Your task to perform on an android device: empty trash in the gmail app Image 0: 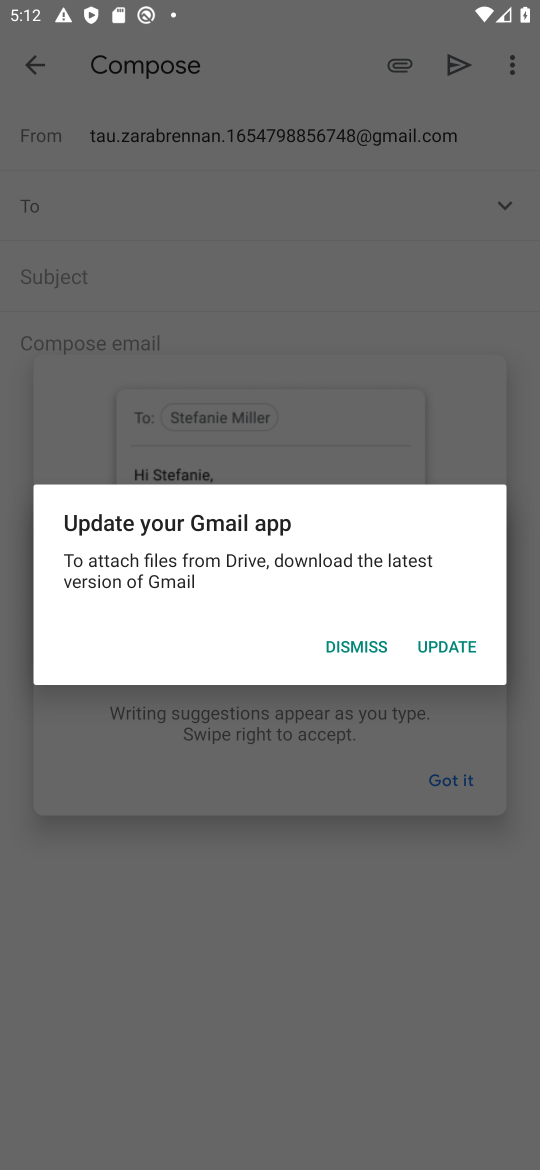
Step 0: press home button
Your task to perform on an android device: empty trash in the gmail app Image 1: 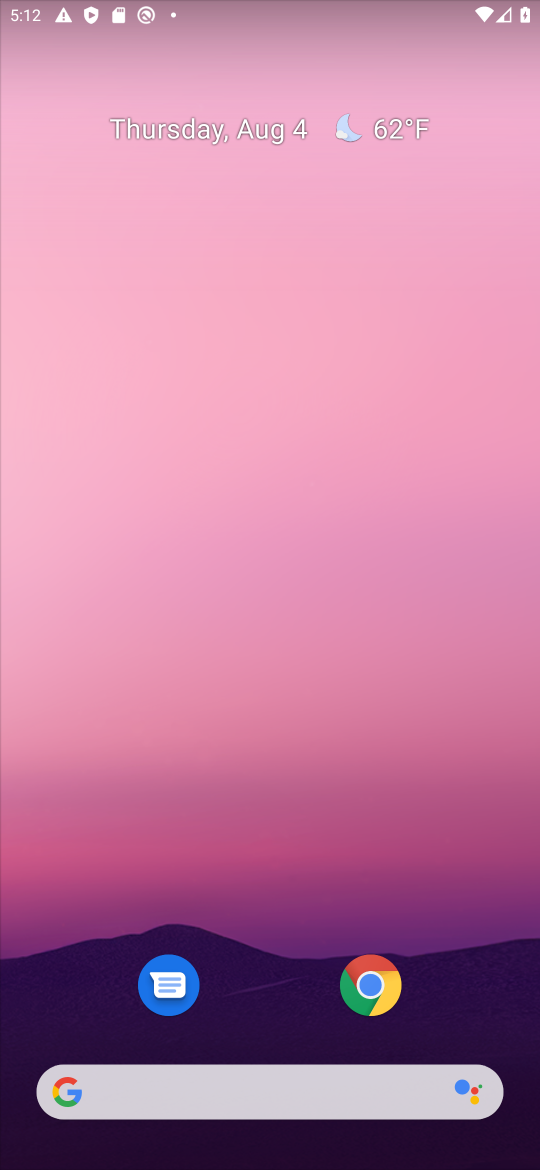
Step 1: drag from (295, 968) to (274, 218)
Your task to perform on an android device: empty trash in the gmail app Image 2: 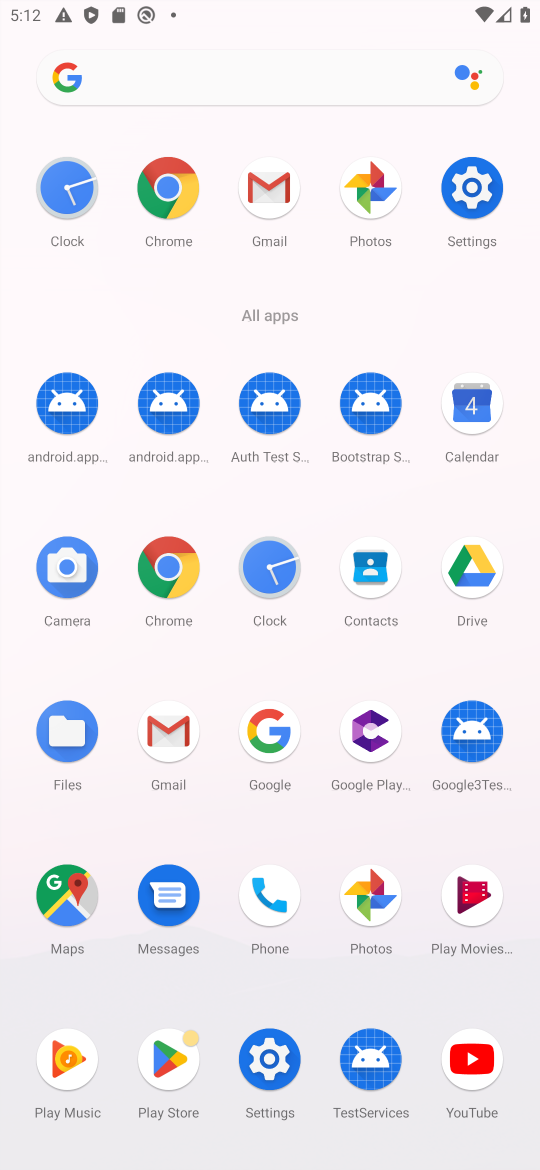
Step 2: click (163, 725)
Your task to perform on an android device: empty trash in the gmail app Image 3: 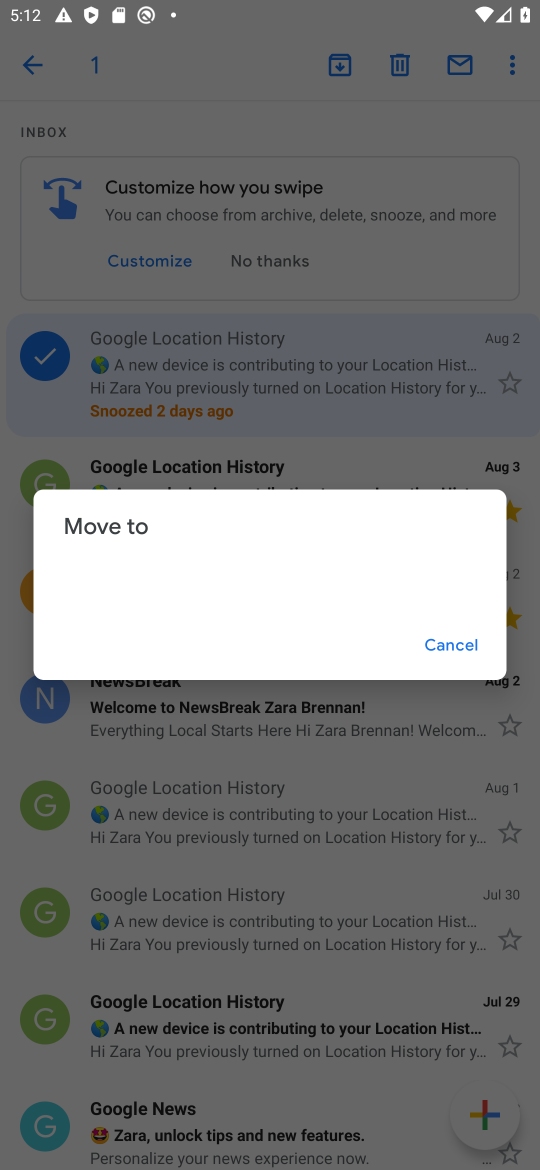
Step 3: click (459, 642)
Your task to perform on an android device: empty trash in the gmail app Image 4: 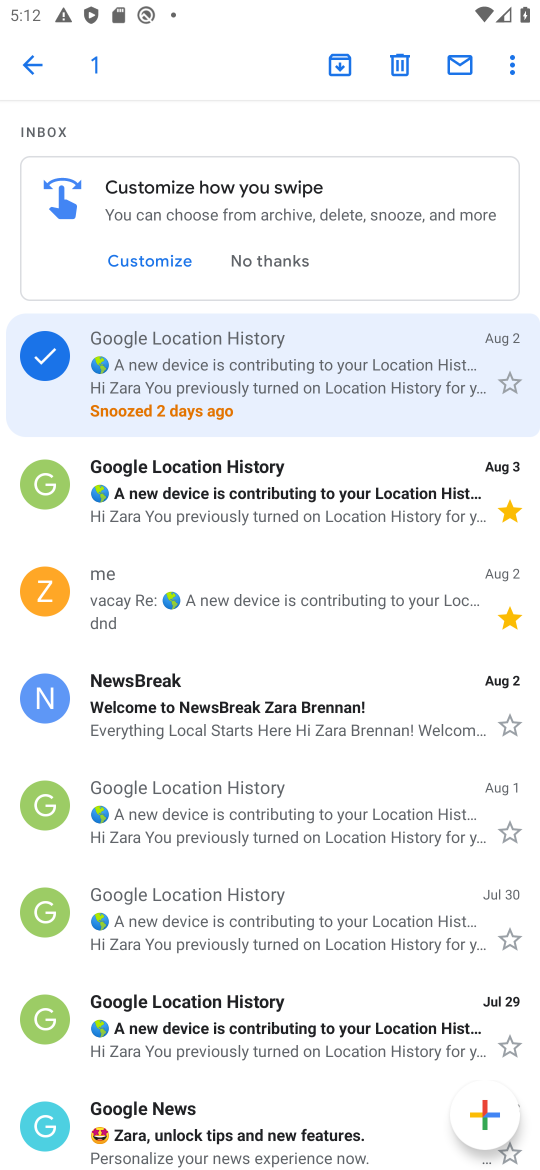
Step 4: click (35, 74)
Your task to perform on an android device: empty trash in the gmail app Image 5: 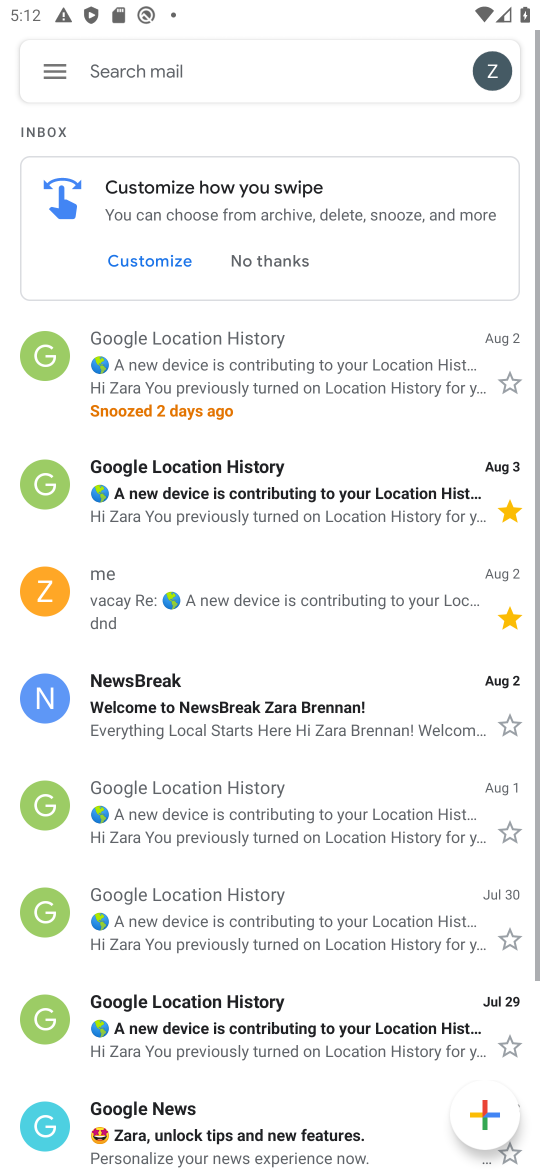
Step 5: click (35, 74)
Your task to perform on an android device: empty trash in the gmail app Image 6: 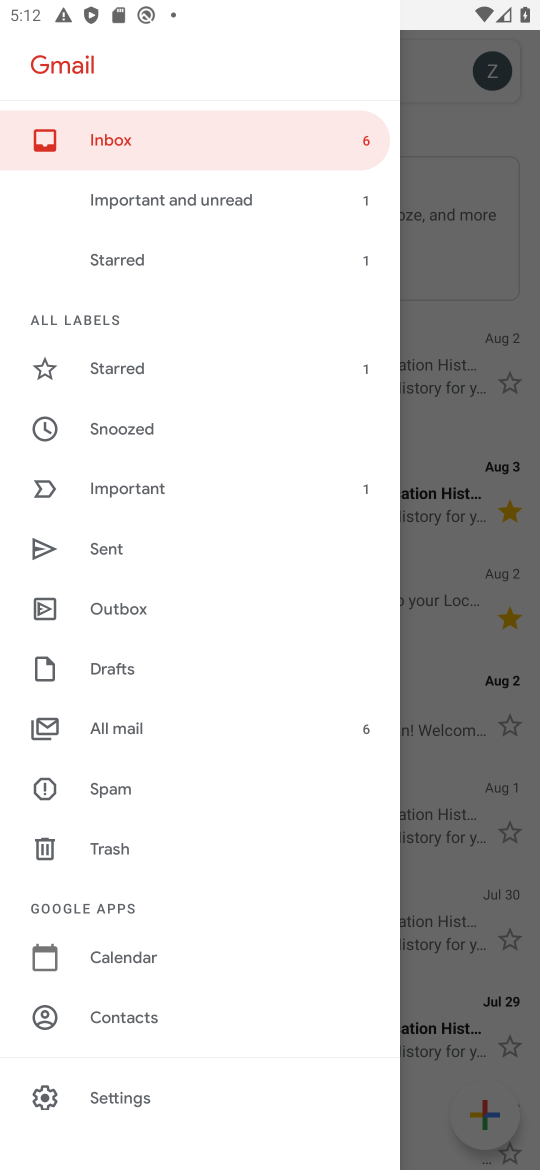
Step 6: click (112, 835)
Your task to perform on an android device: empty trash in the gmail app Image 7: 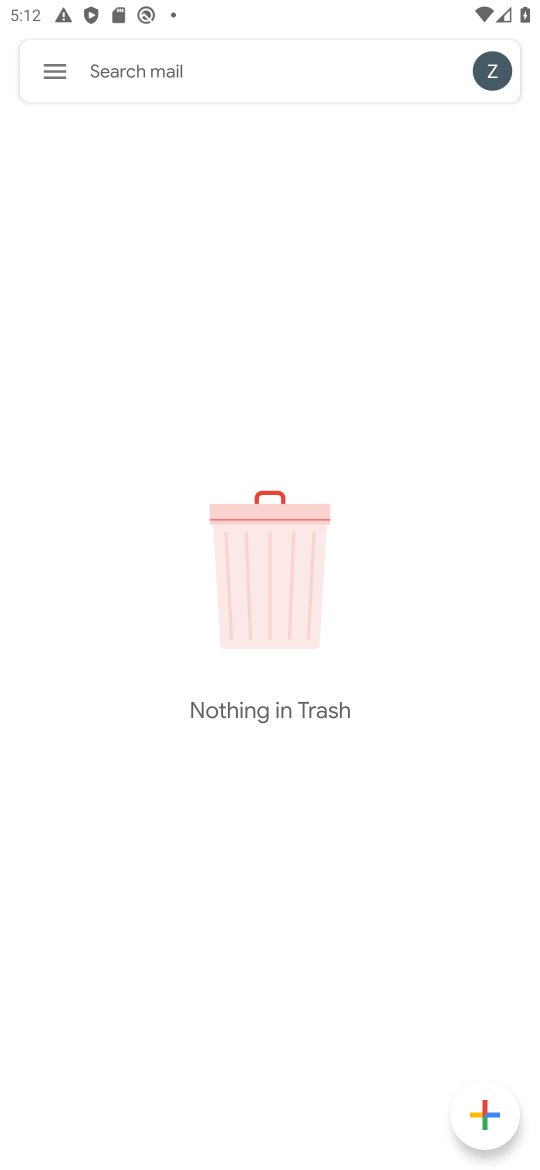
Step 7: task complete